Your task to perform on an android device: toggle sleep mode Image 0: 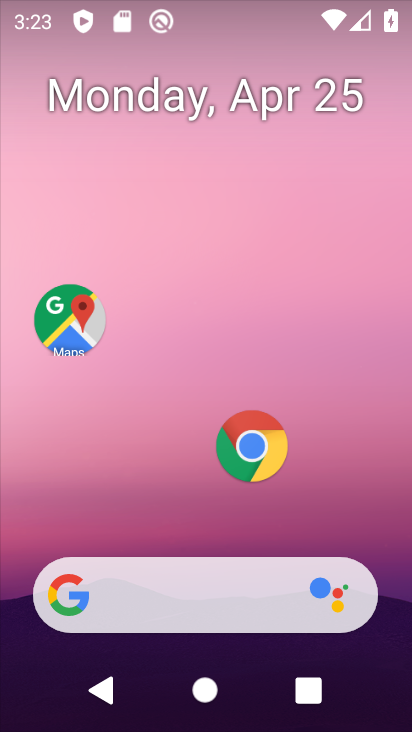
Step 0: drag from (242, 9) to (306, 500)
Your task to perform on an android device: toggle sleep mode Image 1: 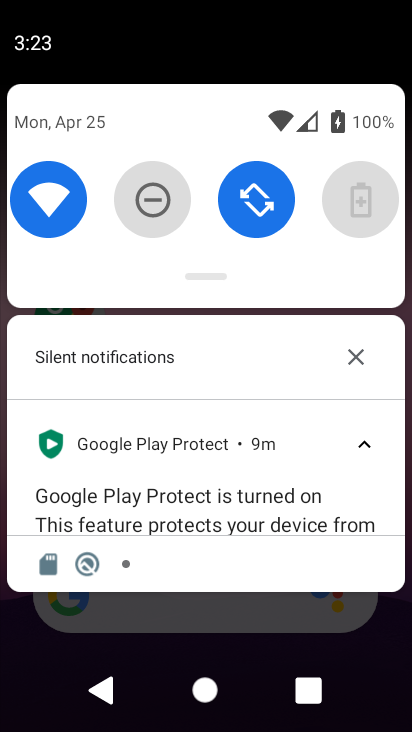
Step 1: drag from (131, 222) to (139, 649)
Your task to perform on an android device: toggle sleep mode Image 2: 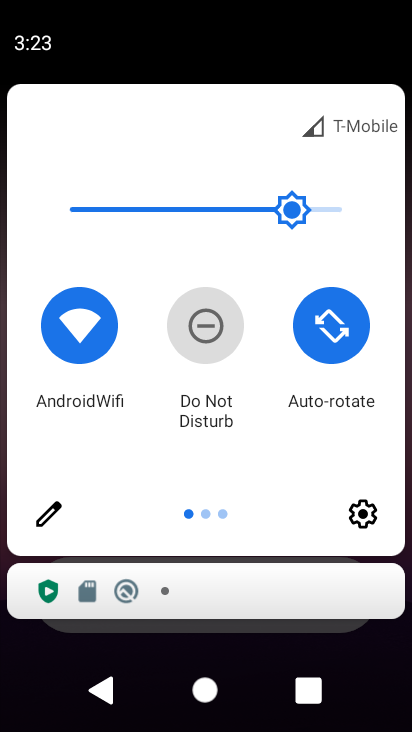
Step 2: click (364, 531)
Your task to perform on an android device: toggle sleep mode Image 3: 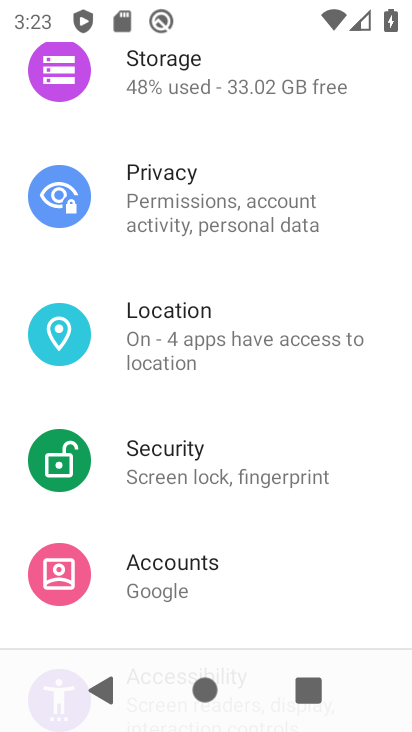
Step 3: task complete